Your task to perform on an android device: set the timer Image 0: 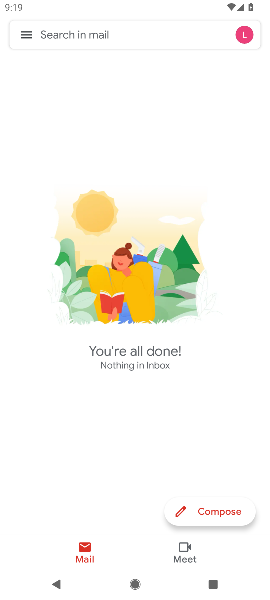
Step 0: press home button
Your task to perform on an android device: set the timer Image 1: 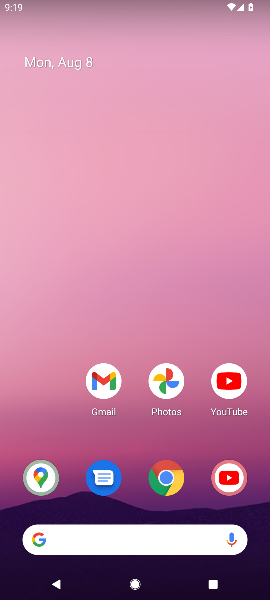
Step 1: drag from (147, 504) to (210, 89)
Your task to perform on an android device: set the timer Image 2: 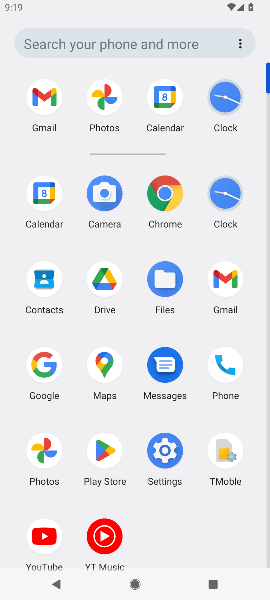
Step 2: click (225, 192)
Your task to perform on an android device: set the timer Image 3: 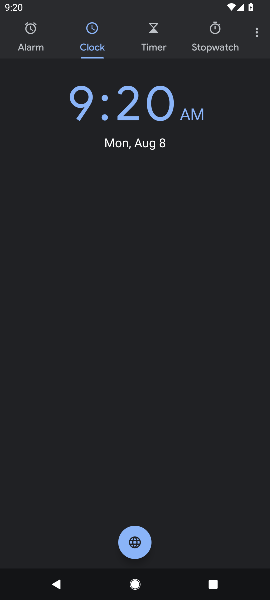
Step 3: click (151, 35)
Your task to perform on an android device: set the timer Image 4: 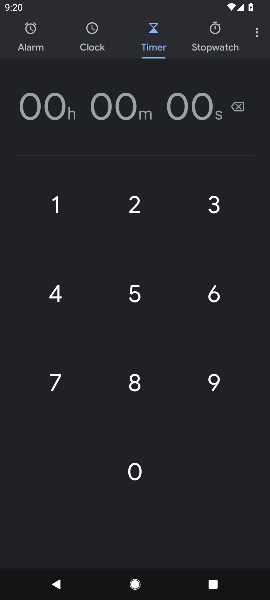
Step 4: click (135, 382)
Your task to perform on an android device: set the timer Image 5: 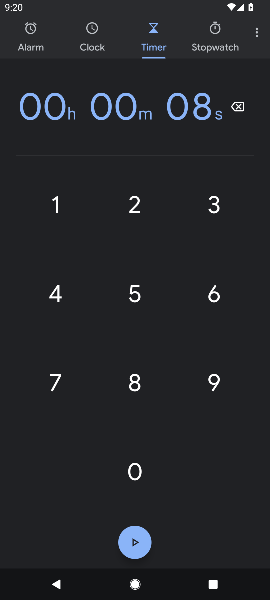
Step 5: click (133, 287)
Your task to perform on an android device: set the timer Image 6: 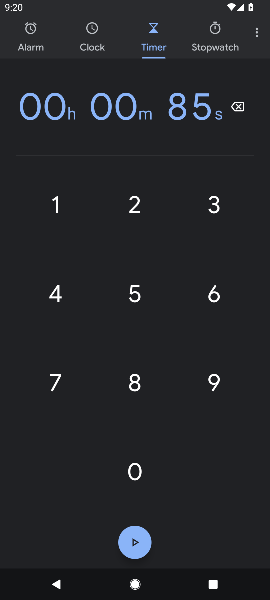
Step 6: click (140, 549)
Your task to perform on an android device: set the timer Image 7: 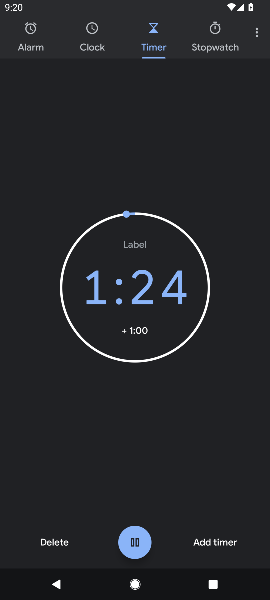
Step 7: click (144, 540)
Your task to perform on an android device: set the timer Image 8: 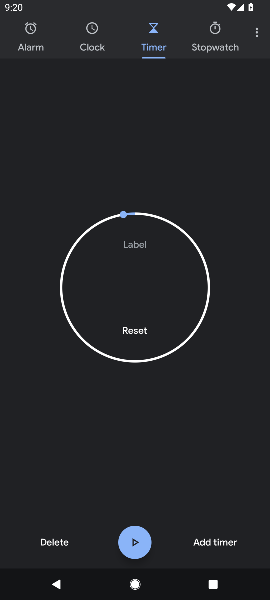
Step 8: task complete